Your task to perform on an android device: What is the news today? Image 0: 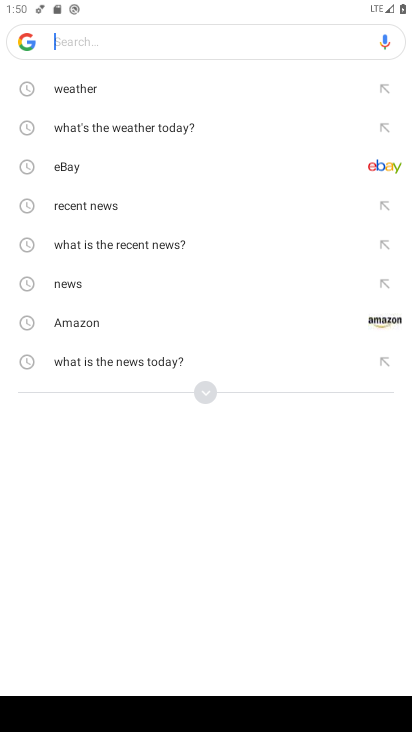
Step 0: type "what is the news today "
Your task to perform on an android device: What is the news today? Image 1: 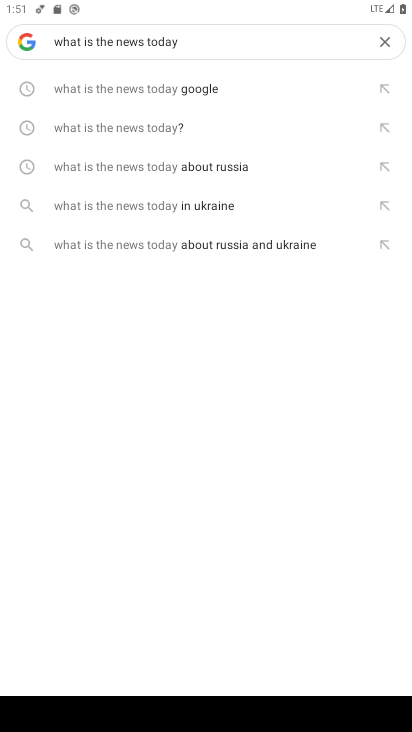
Step 1: click (134, 142)
Your task to perform on an android device: What is the news today? Image 2: 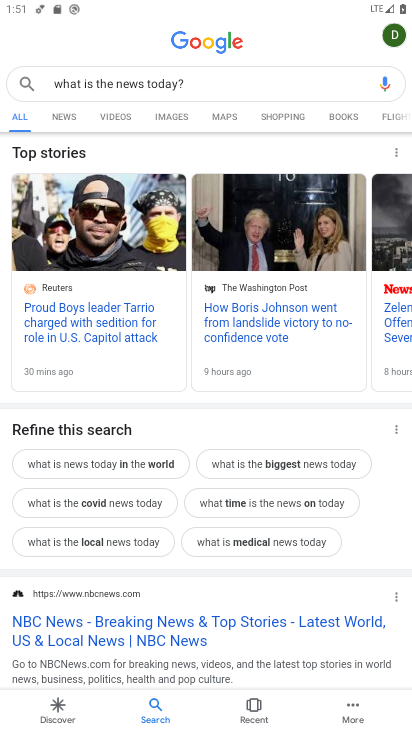
Step 2: task complete